Your task to perform on an android device: Open Yahoo.com Image 0: 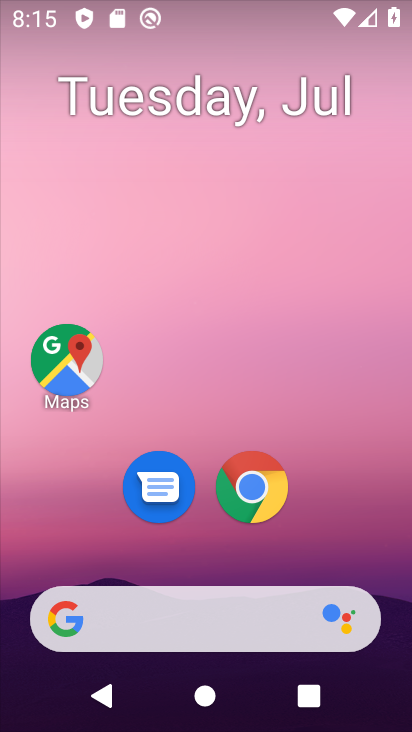
Step 0: click (255, 468)
Your task to perform on an android device: Open Yahoo.com Image 1: 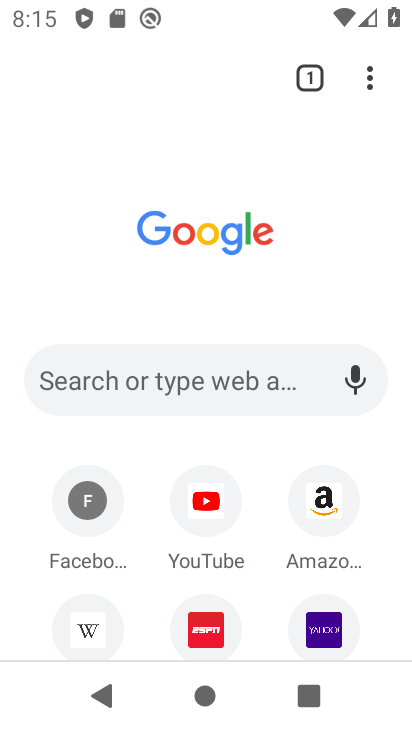
Step 1: click (318, 615)
Your task to perform on an android device: Open Yahoo.com Image 2: 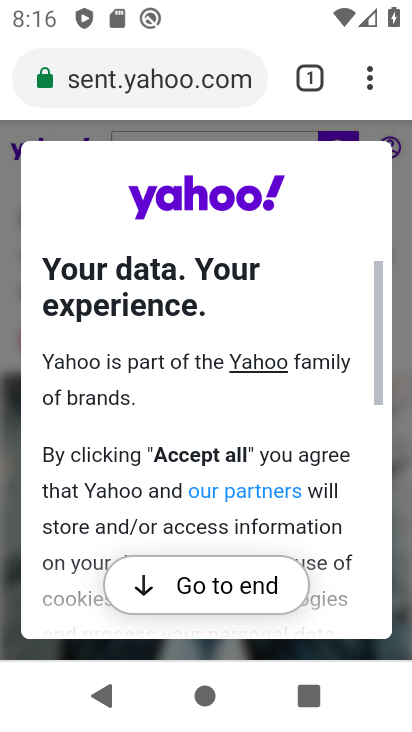
Step 2: task complete